Your task to perform on an android device: turn off data saver in the chrome app Image 0: 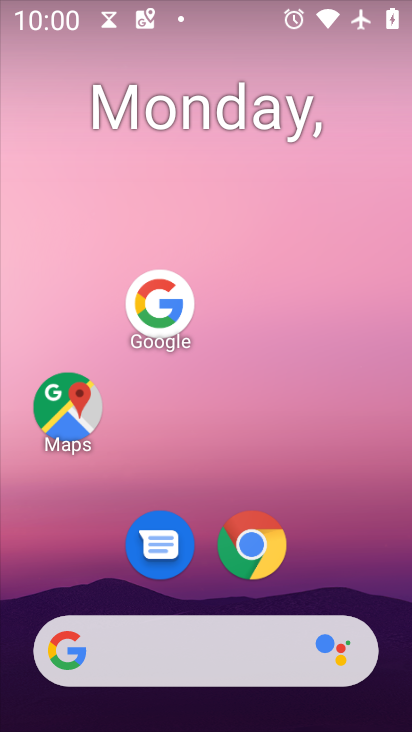
Step 0: press home button
Your task to perform on an android device: turn off data saver in the chrome app Image 1: 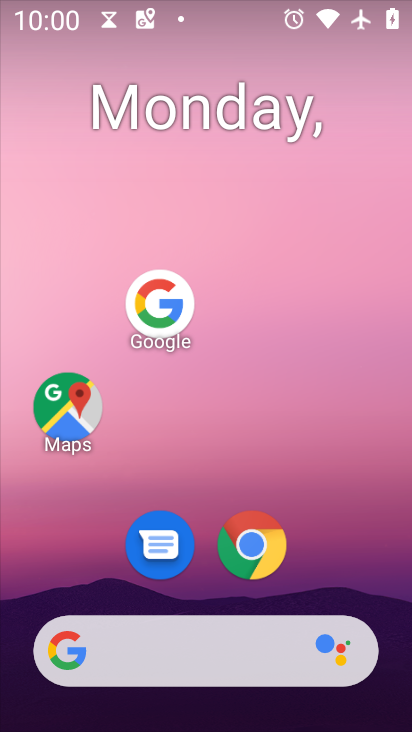
Step 1: click (263, 562)
Your task to perform on an android device: turn off data saver in the chrome app Image 2: 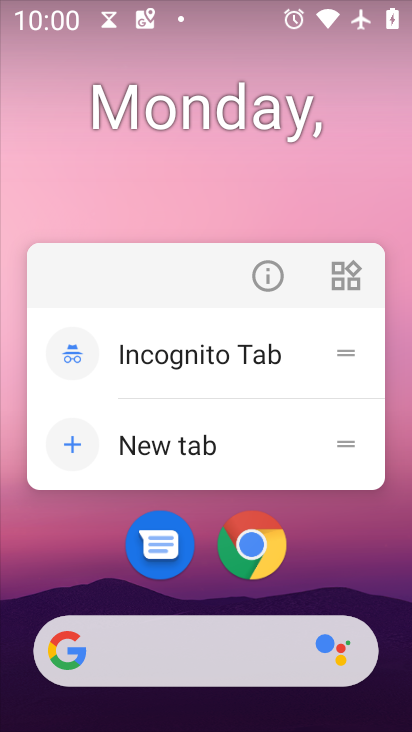
Step 2: click (254, 550)
Your task to perform on an android device: turn off data saver in the chrome app Image 3: 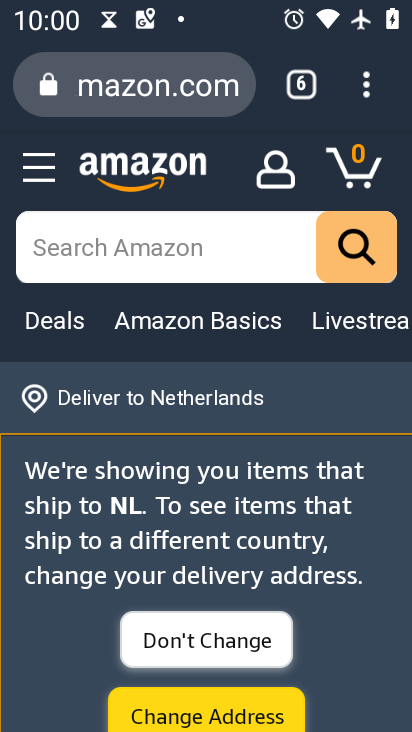
Step 3: drag from (367, 88) to (245, 592)
Your task to perform on an android device: turn off data saver in the chrome app Image 4: 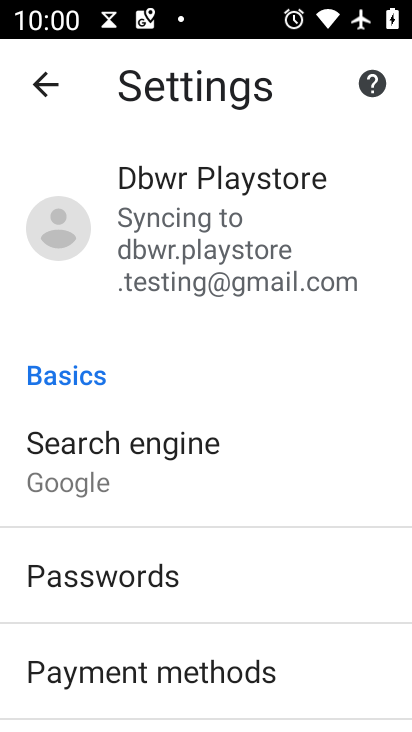
Step 4: drag from (203, 643) to (335, 153)
Your task to perform on an android device: turn off data saver in the chrome app Image 5: 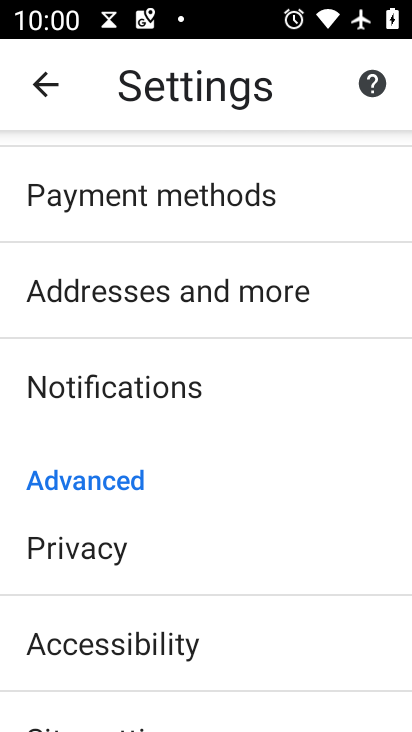
Step 5: drag from (245, 660) to (311, 233)
Your task to perform on an android device: turn off data saver in the chrome app Image 6: 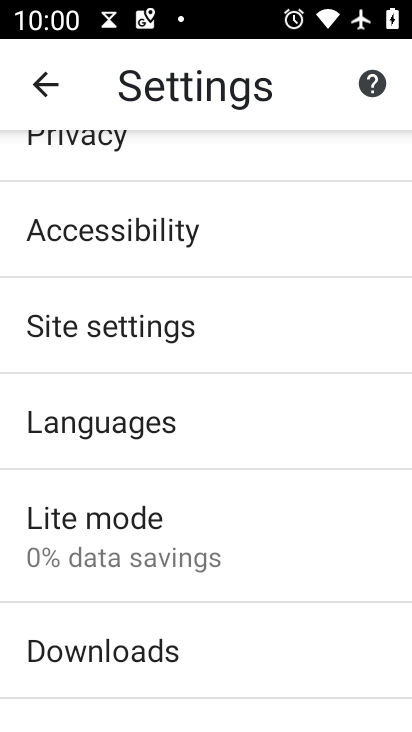
Step 6: click (155, 545)
Your task to perform on an android device: turn off data saver in the chrome app Image 7: 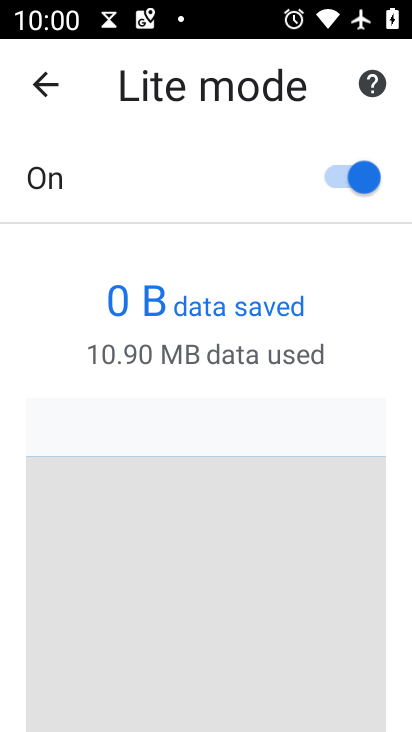
Step 7: click (337, 178)
Your task to perform on an android device: turn off data saver in the chrome app Image 8: 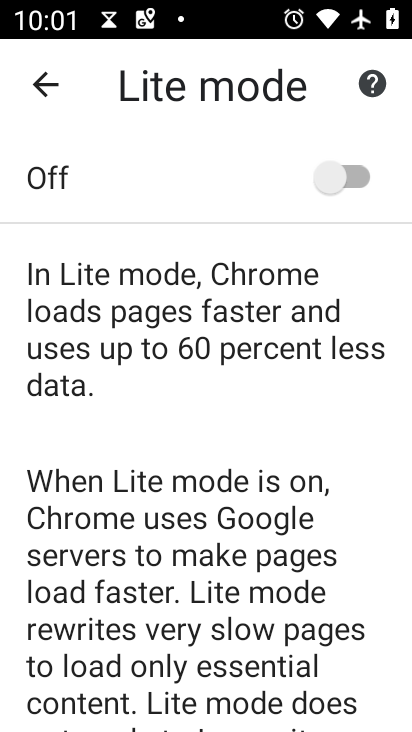
Step 8: task complete